Your task to perform on an android device: Open display settings Image 0: 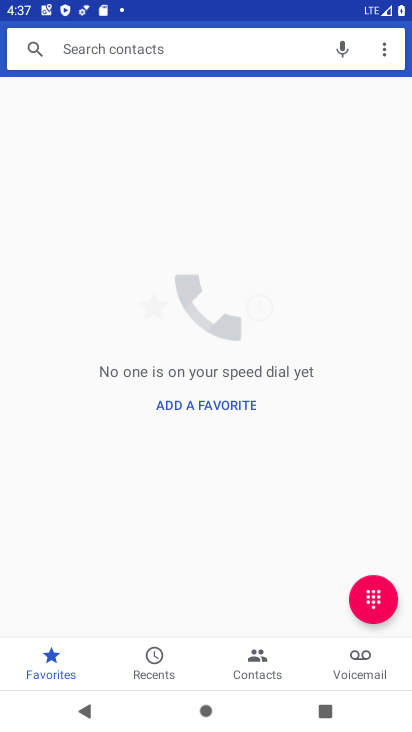
Step 0: press home button
Your task to perform on an android device: Open display settings Image 1: 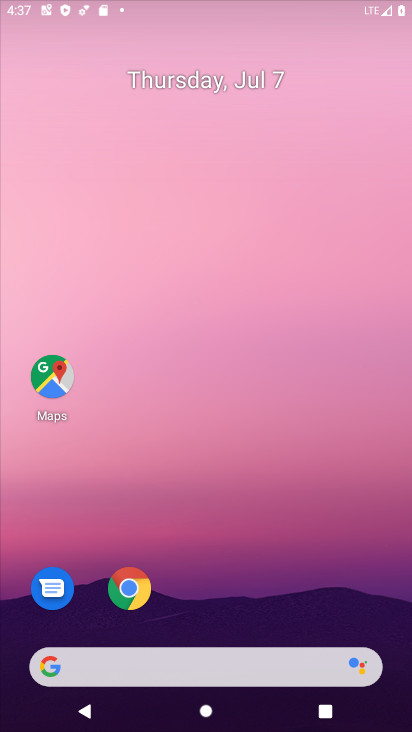
Step 1: drag from (246, 675) to (282, 133)
Your task to perform on an android device: Open display settings Image 2: 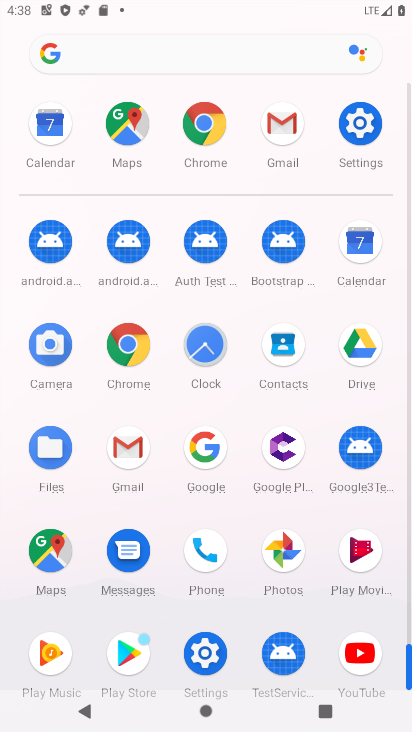
Step 2: click (365, 122)
Your task to perform on an android device: Open display settings Image 3: 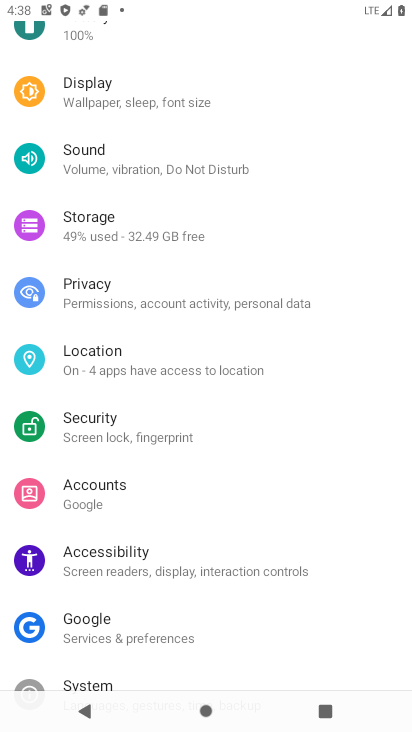
Step 3: click (128, 97)
Your task to perform on an android device: Open display settings Image 4: 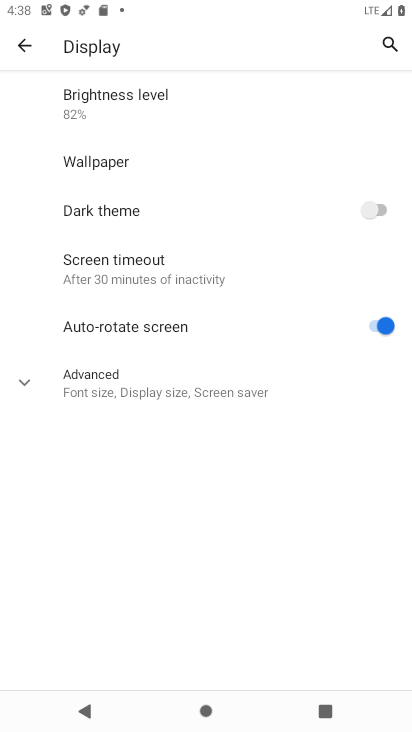
Step 4: task complete